Your task to perform on an android device: star an email in the gmail app Image 0: 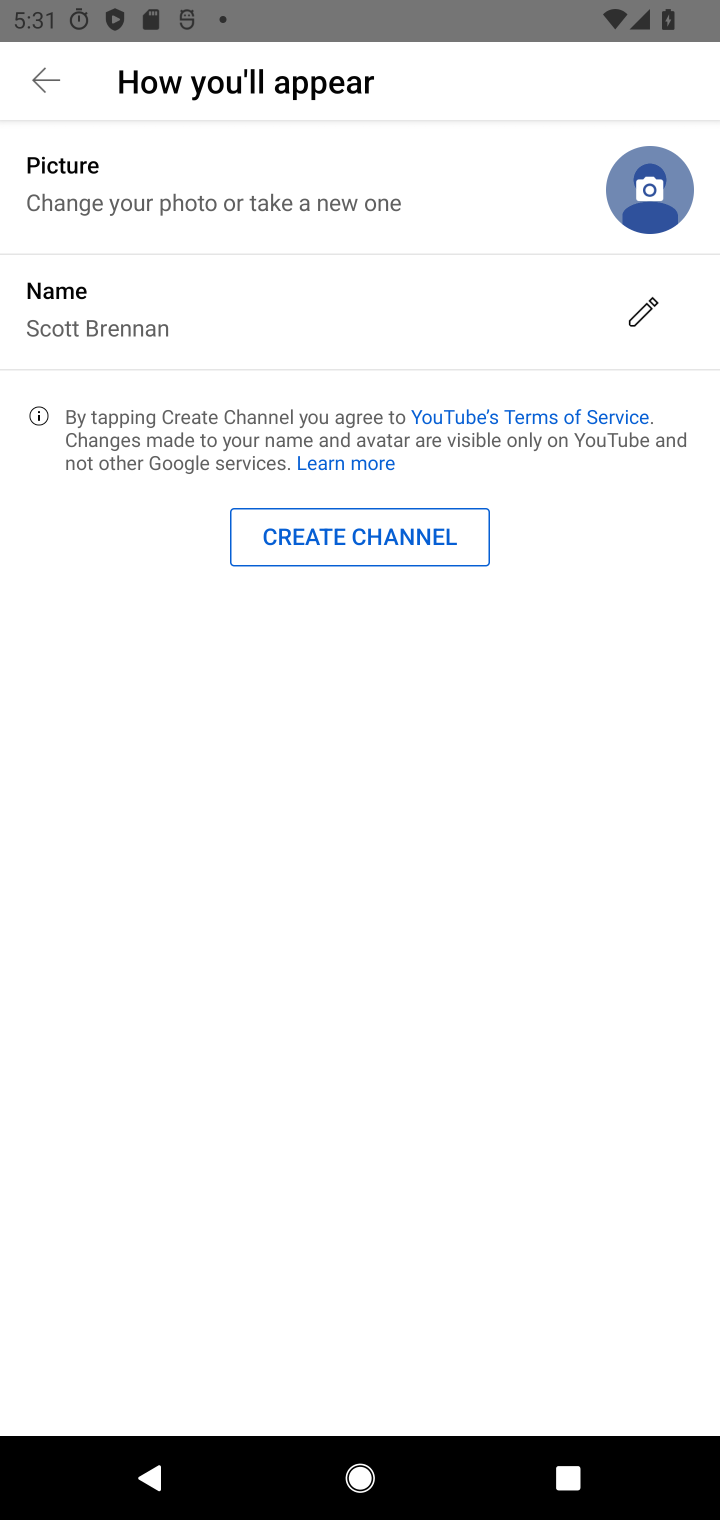
Step 0: press home button
Your task to perform on an android device: star an email in the gmail app Image 1: 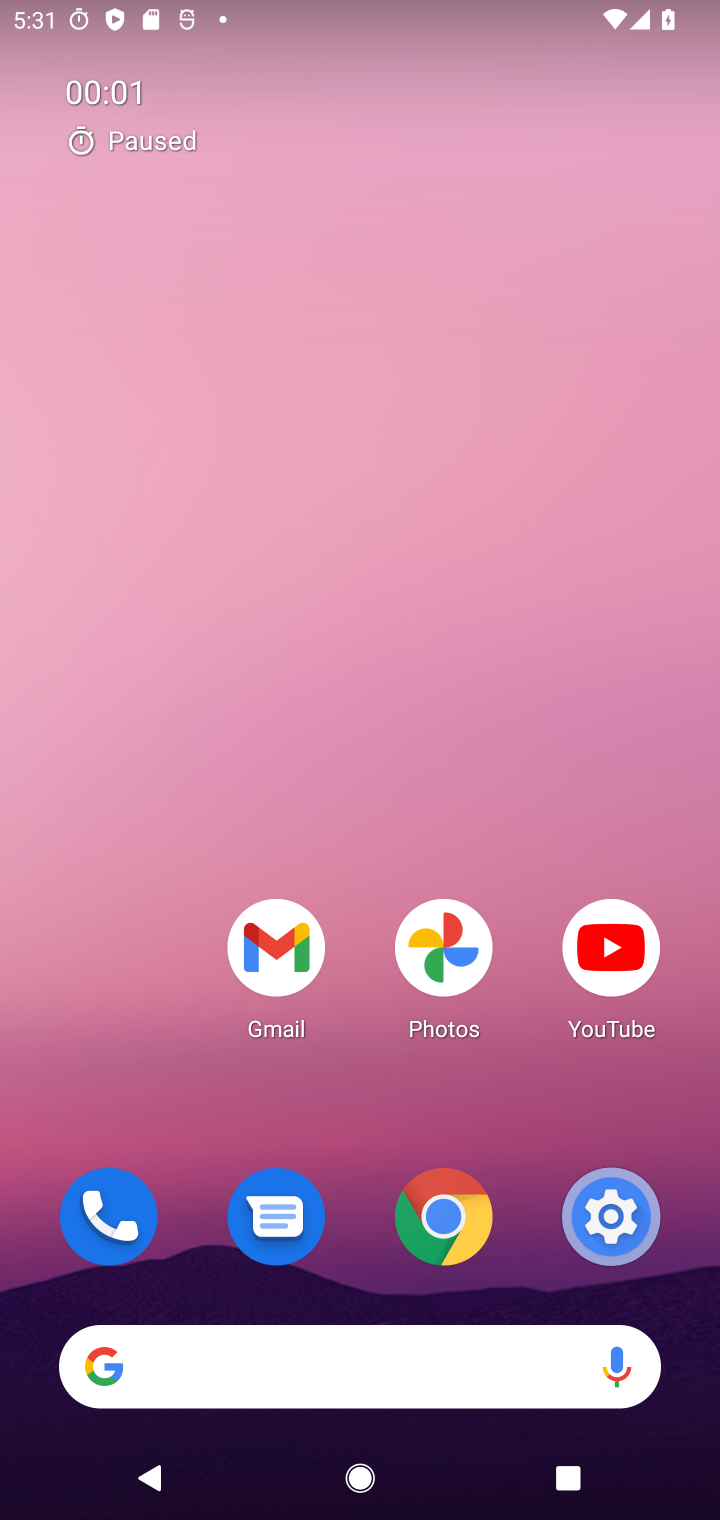
Step 1: drag from (540, 1096) to (533, 225)
Your task to perform on an android device: star an email in the gmail app Image 2: 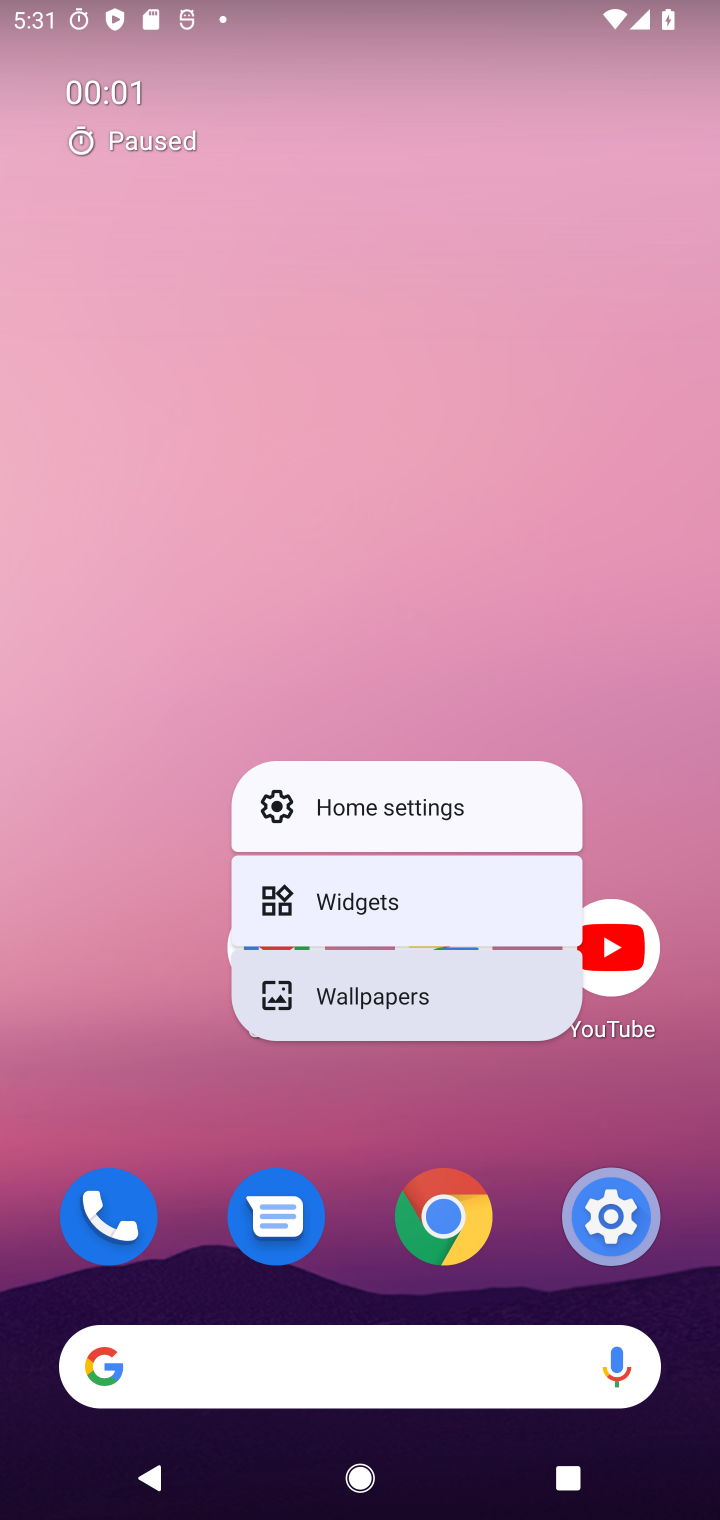
Step 2: click (334, 310)
Your task to perform on an android device: star an email in the gmail app Image 3: 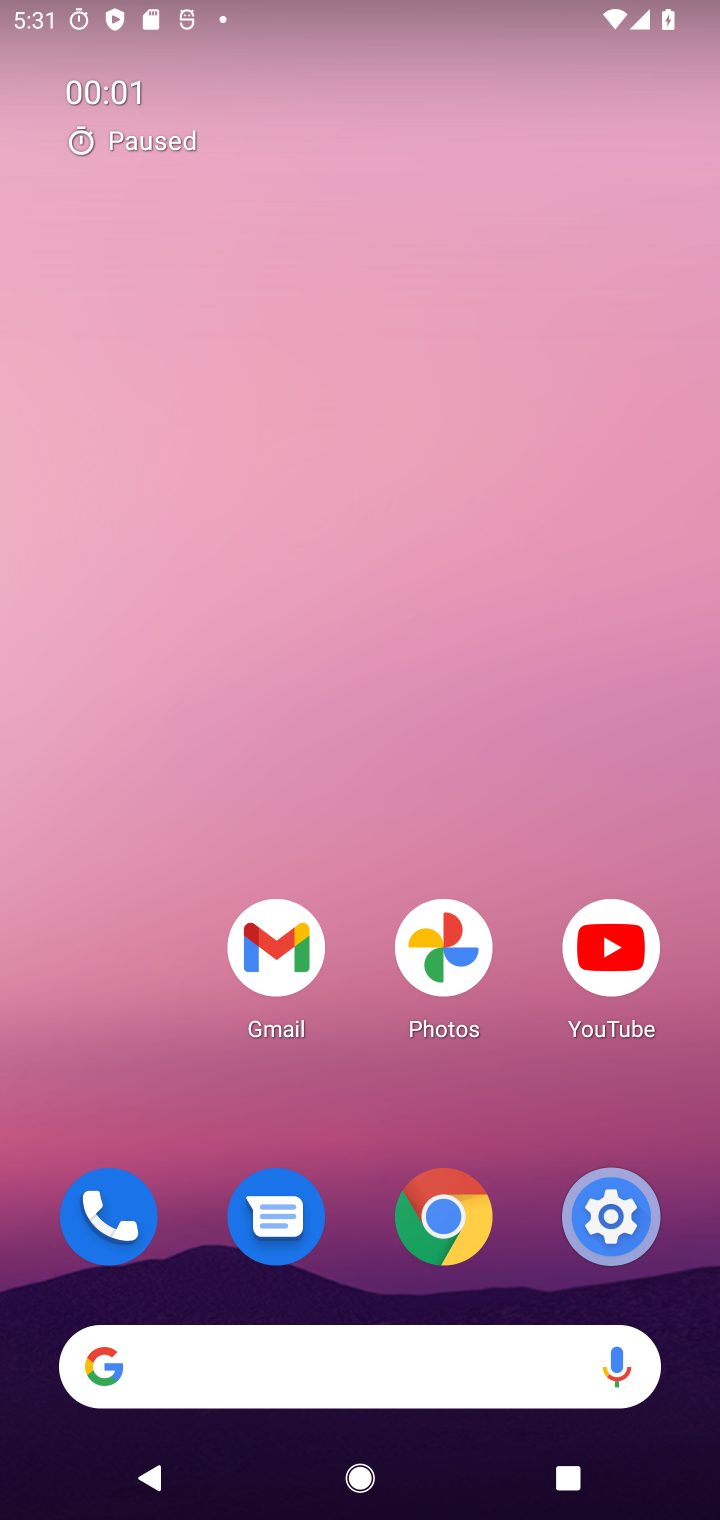
Step 3: drag from (361, 1081) to (408, 272)
Your task to perform on an android device: star an email in the gmail app Image 4: 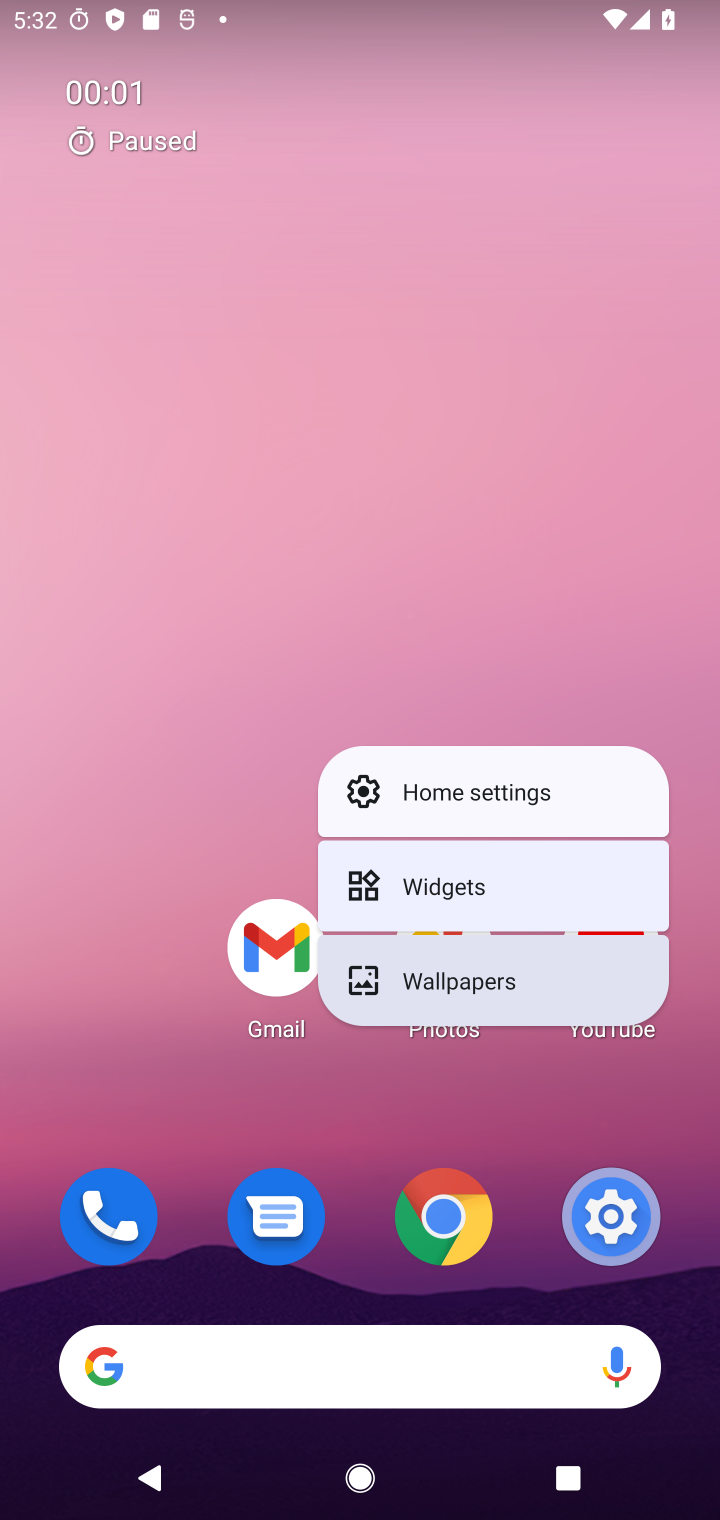
Step 4: click (165, 1079)
Your task to perform on an android device: star an email in the gmail app Image 5: 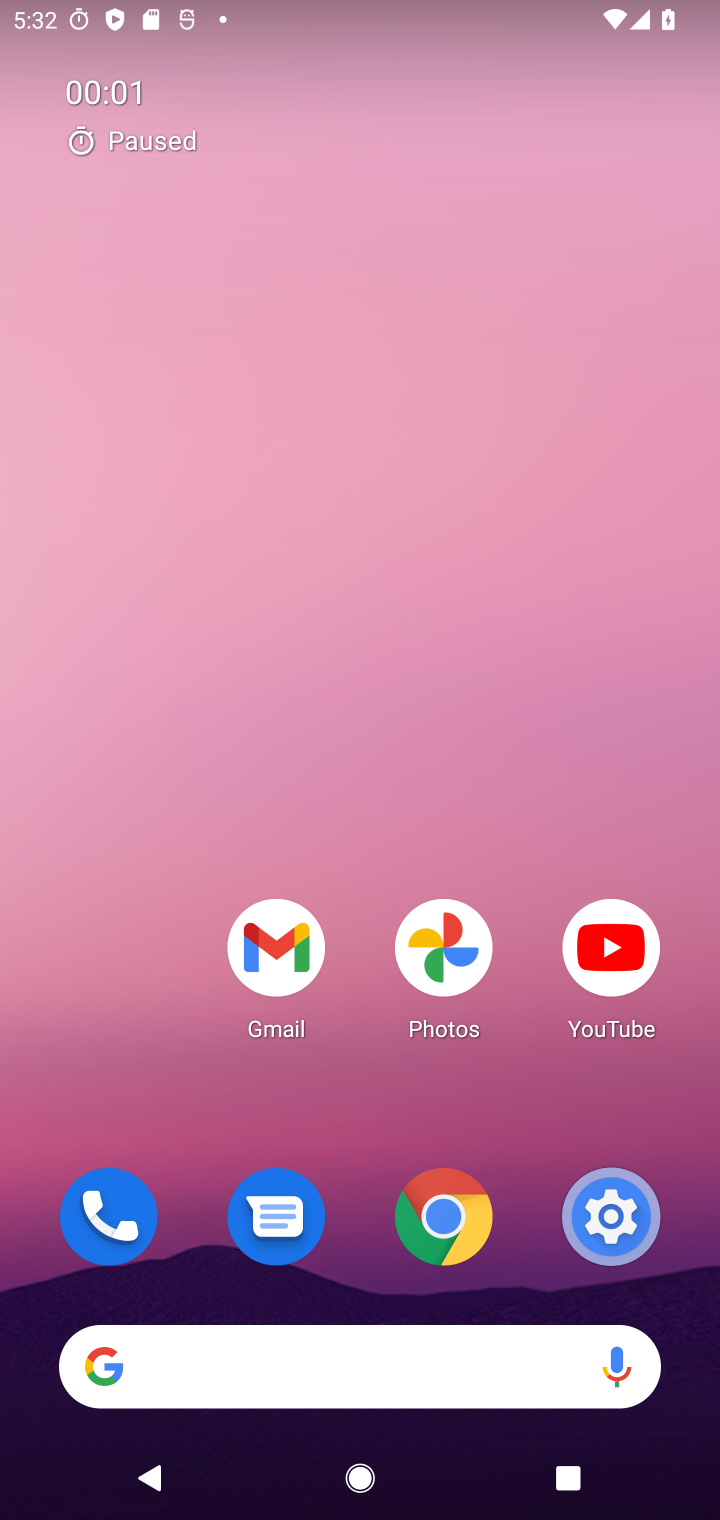
Step 5: drag from (377, 1156) to (478, 138)
Your task to perform on an android device: star an email in the gmail app Image 6: 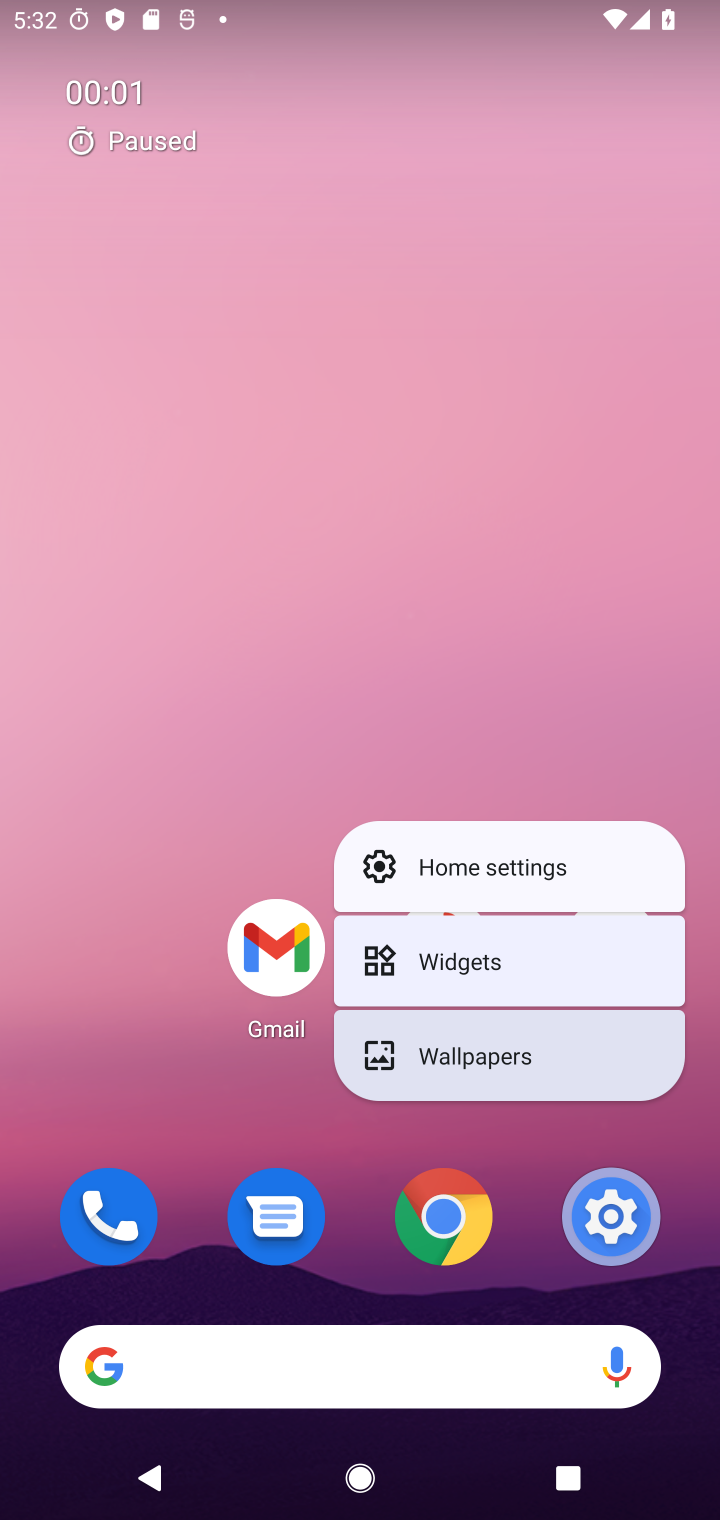
Step 6: click (440, 562)
Your task to perform on an android device: star an email in the gmail app Image 7: 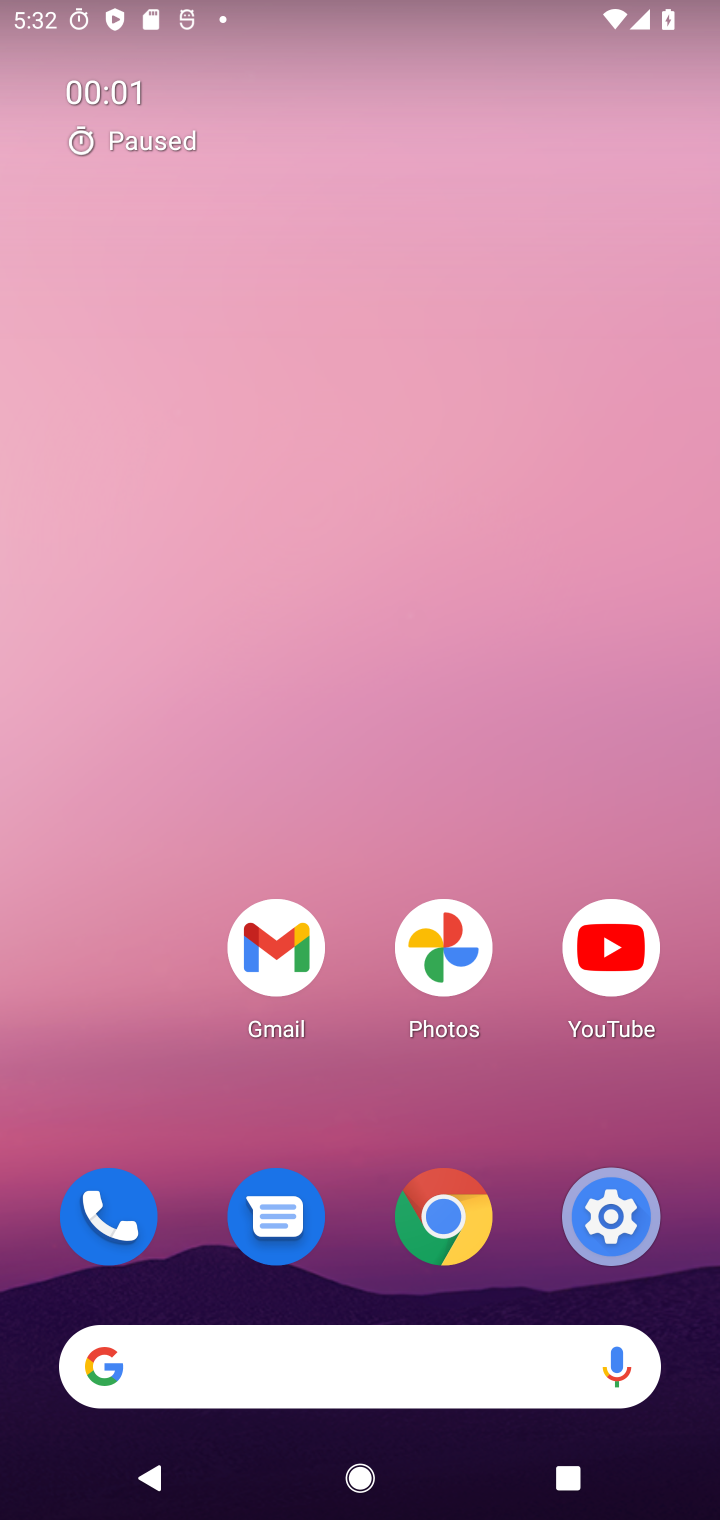
Step 7: drag from (341, 1148) to (472, 280)
Your task to perform on an android device: star an email in the gmail app Image 8: 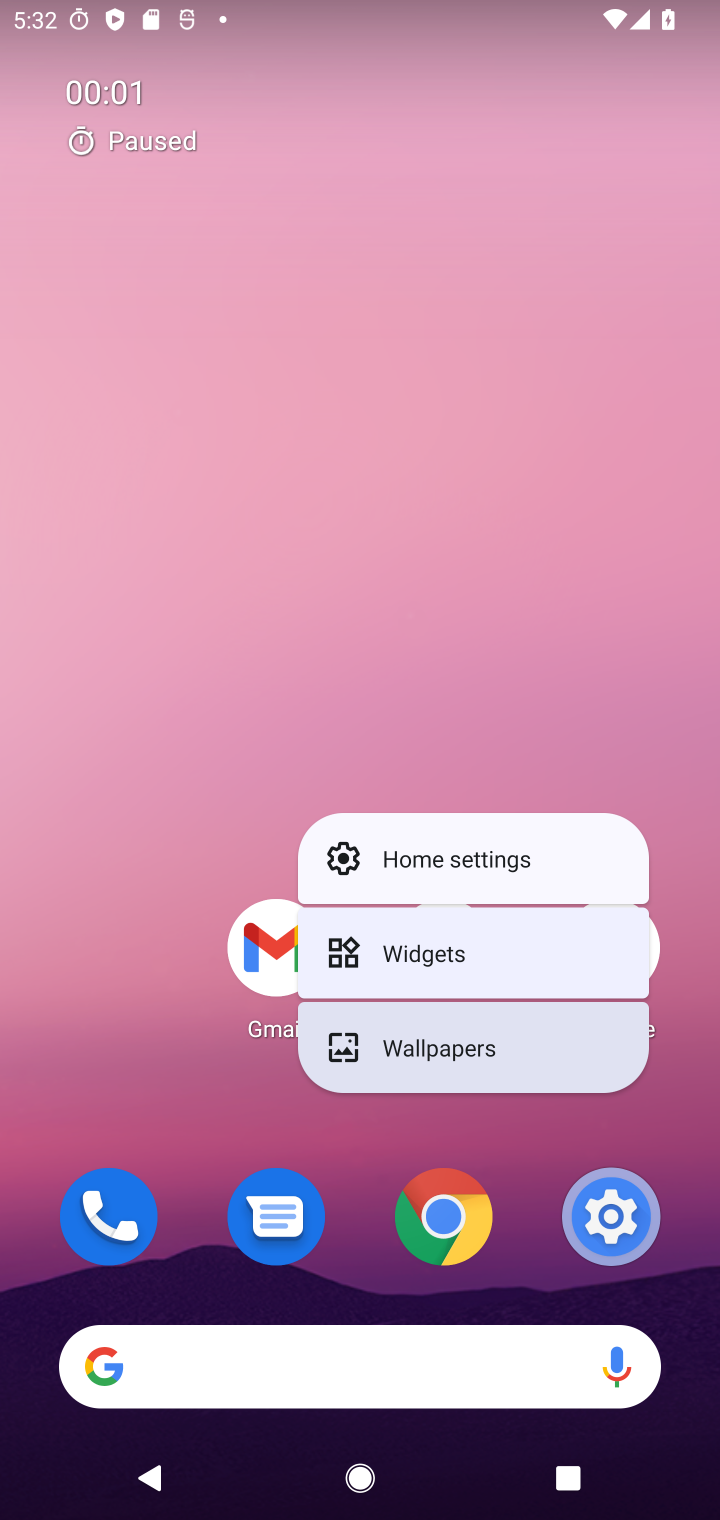
Step 8: click (598, 611)
Your task to perform on an android device: star an email in the gmail app Image 9: 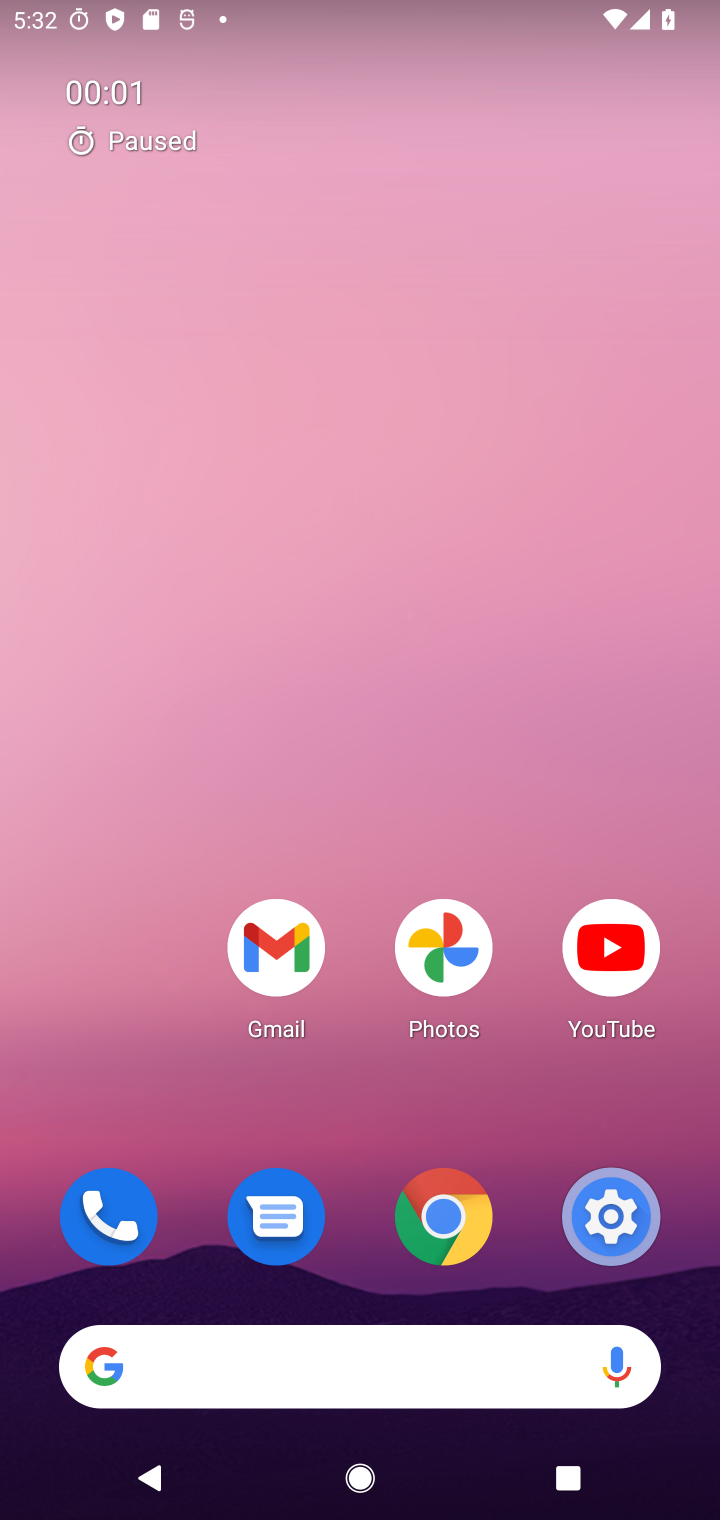
Step 9: drag from (367, 1162) to (457, 301)
Your task to perform on an android device: star an email in the gmail app Image 10: 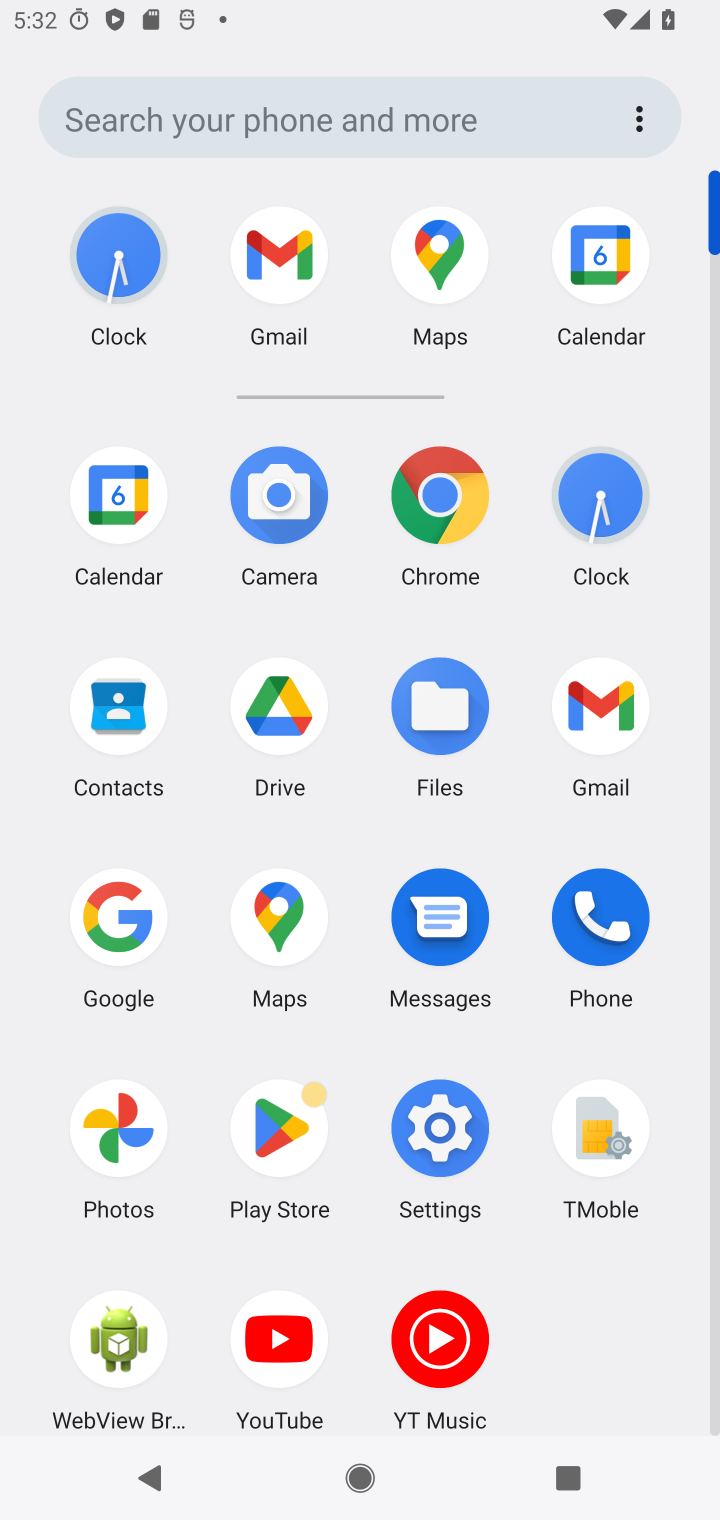
Step 10: click (620, 698)
Your task to perform on an android device: star an email in the gmail app Image 11: 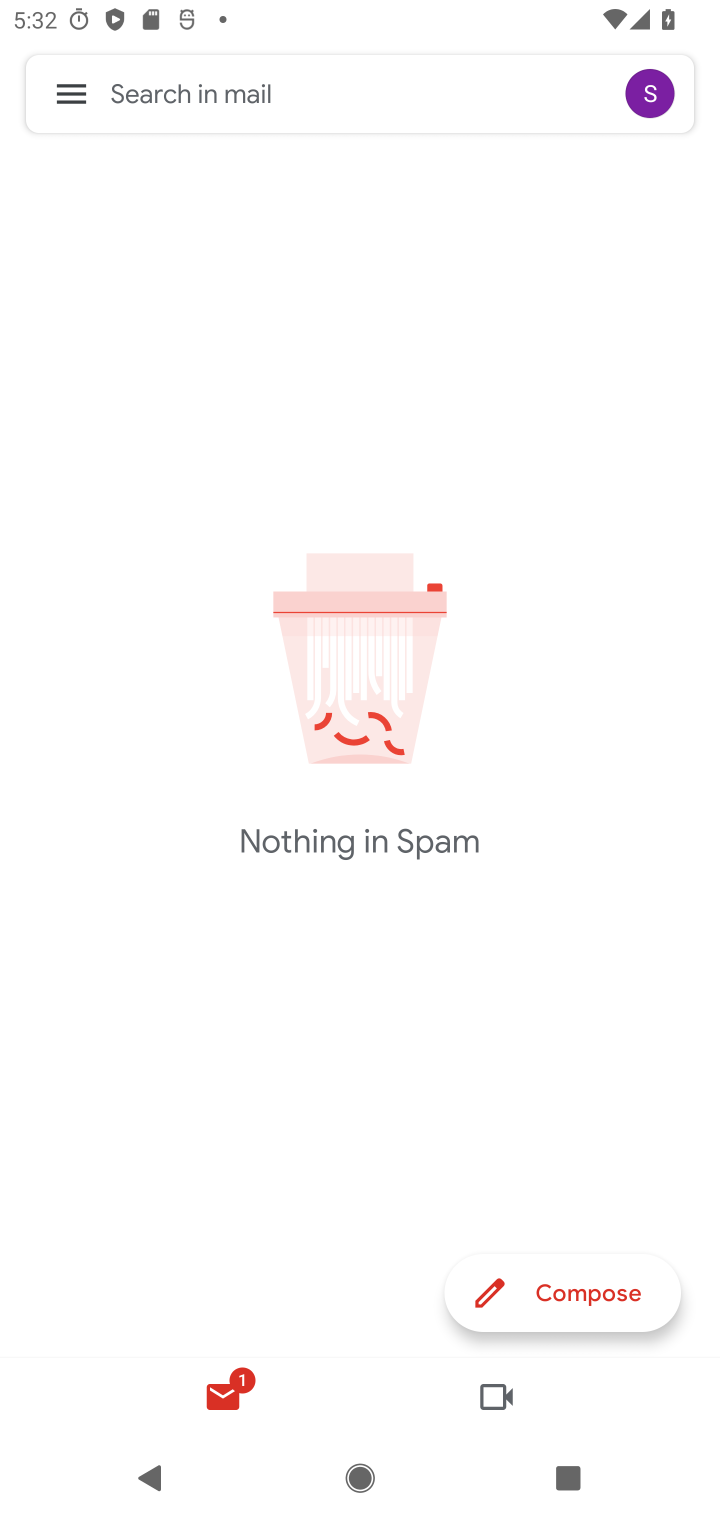
Step 11: click (71, 77)
Your task to perform on an android device: star an email in the gmail app Image 12: 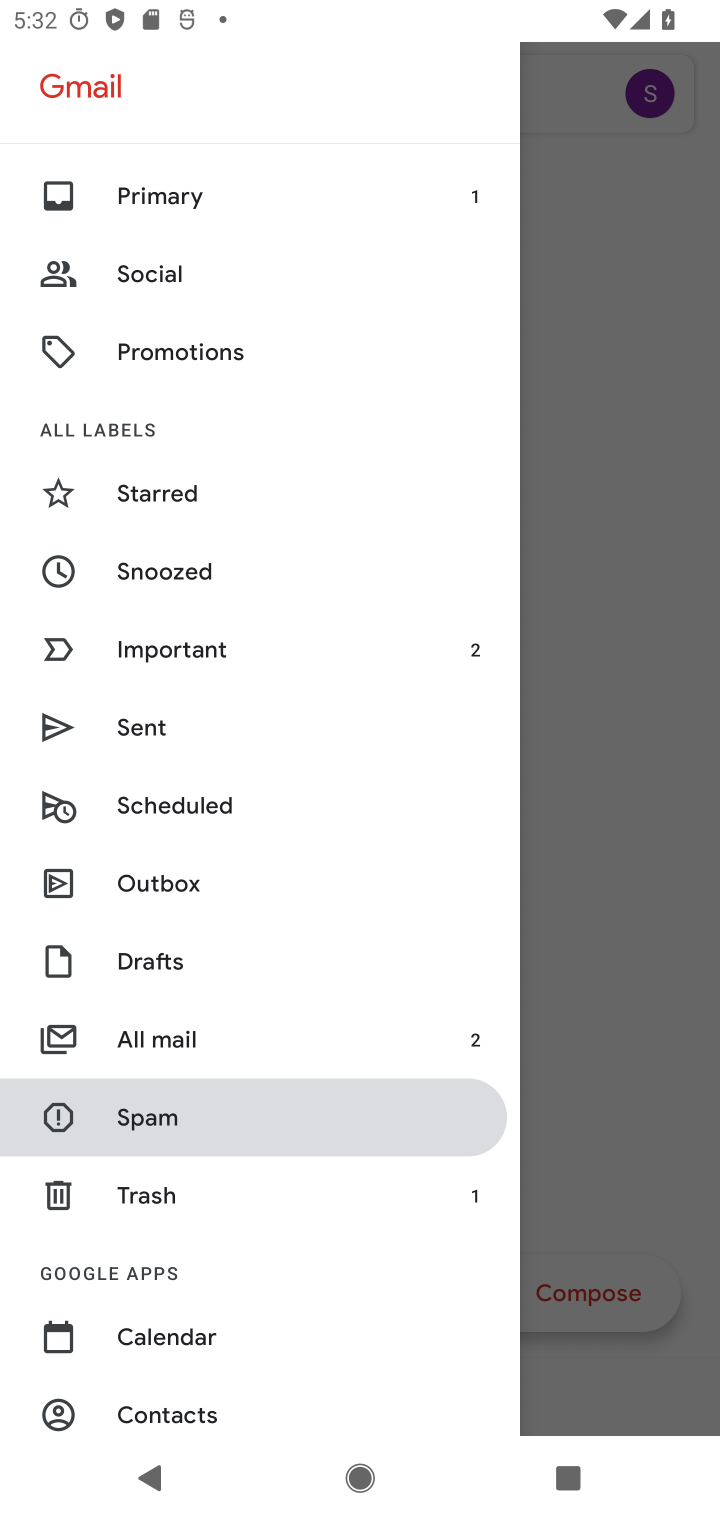
Step 12: click (125, 1037)
Your task to perform on an android device: star an email in the gmail app Image 13: 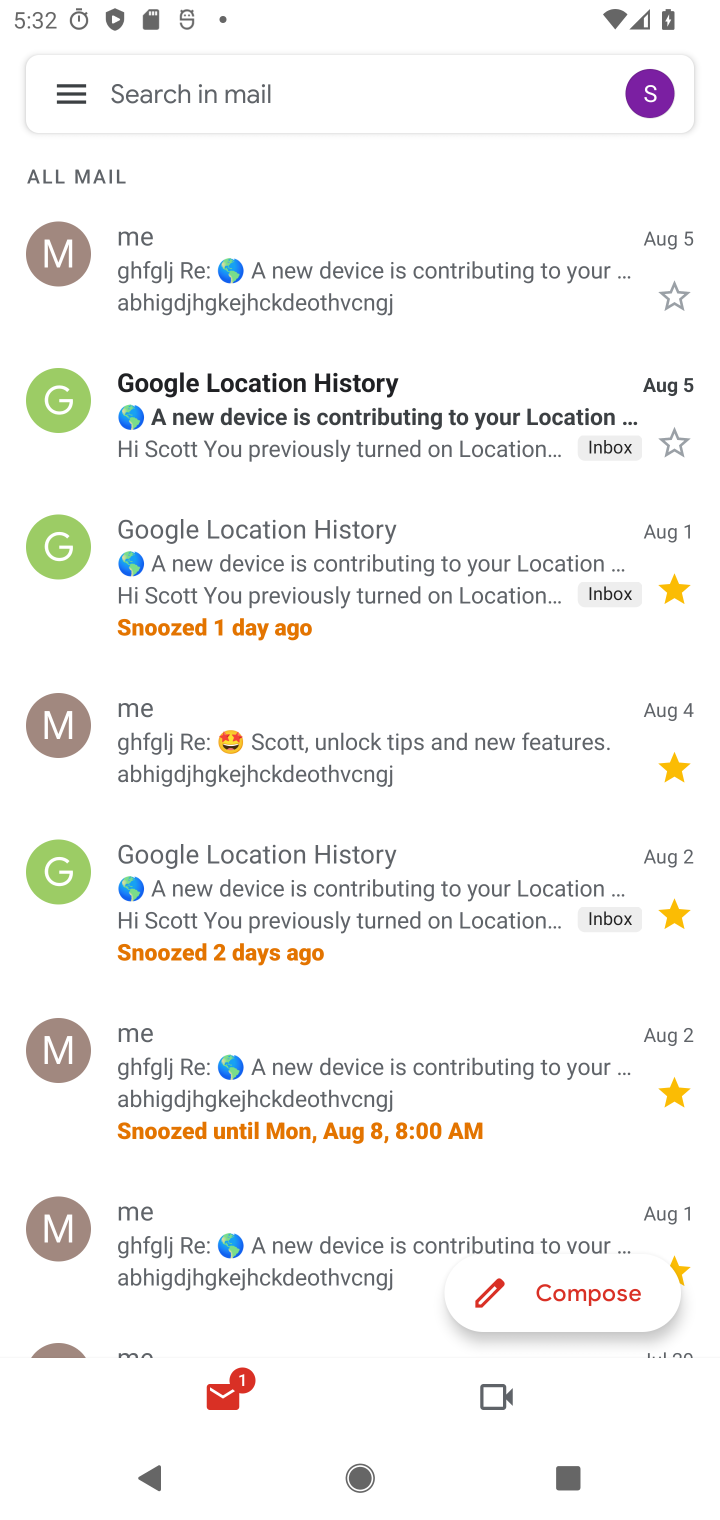
Step 13: click (687, 444)
Your task to perform on an android device: star an email in the gmail app Image 14: 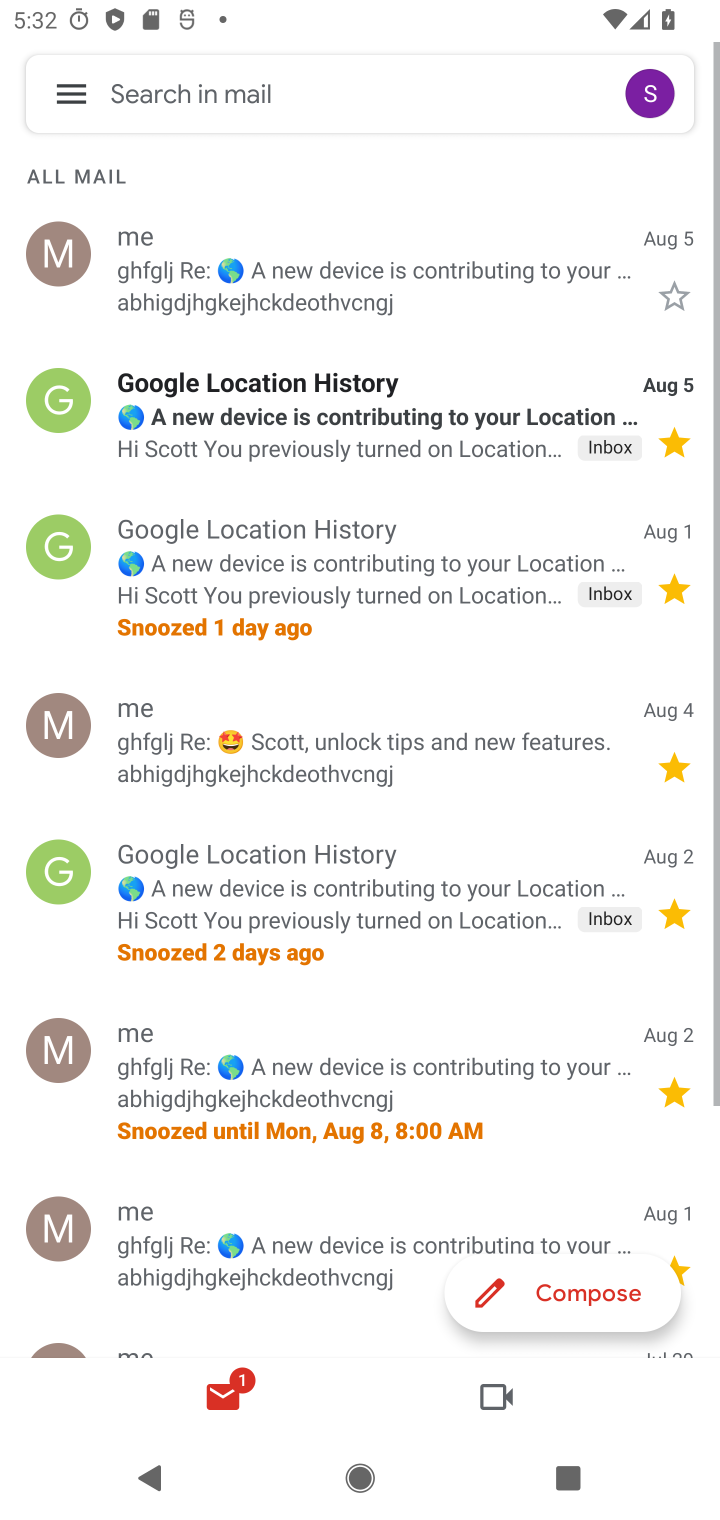
Step 14: task complete